Your task to perform on an android device: Show me productivity apps on the Play Store Image 0: 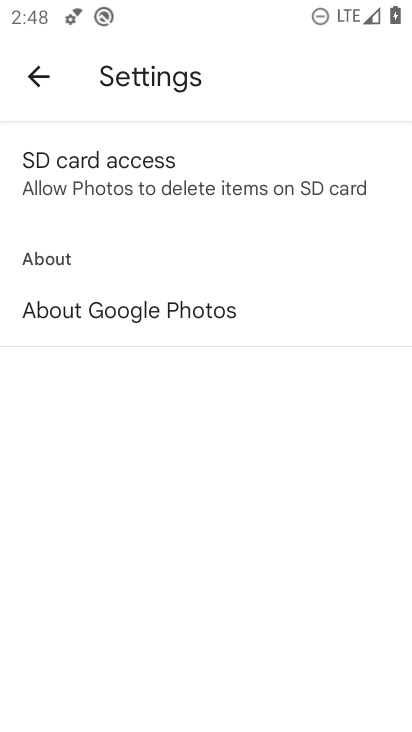
Step 0: click (41, 78)
Your task to perform on an android device: Show me productivity apps on the Play Store Image 1: 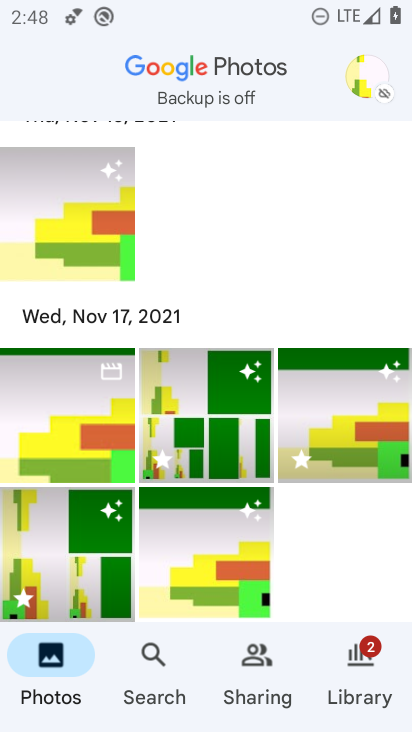
Step 1: press back button
Your task to perform on an android device: Show me productivity apps on the Play Store Image 2: 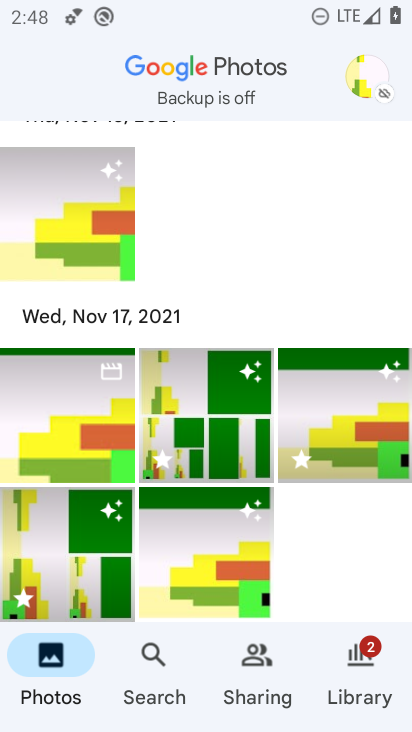
Step 2: press back button
Your task to perform on an android device: Show me productivity apps on the Play Store Image 3: 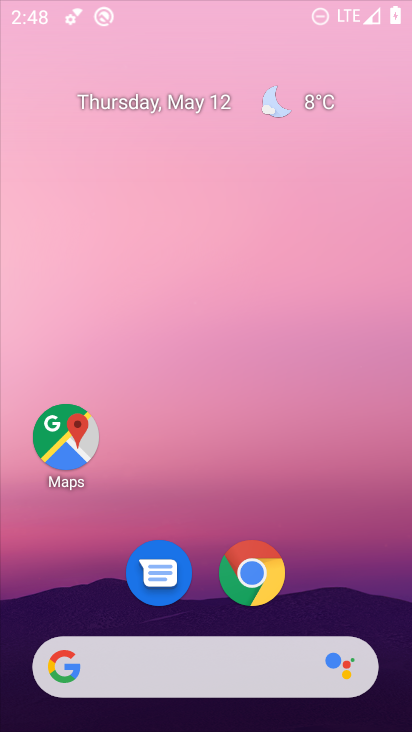
Step 3: press back button
Your task to perform on an android device: Show me productivity apps on the Play Store Image 4: 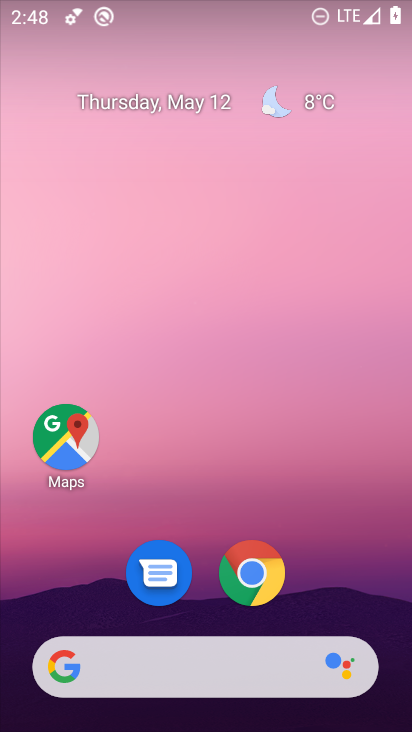
Step 4: drag from (304, 630) to (115, 166)
Your task to perform on an android device: Show me productivity apps on the Play Store Image 5: 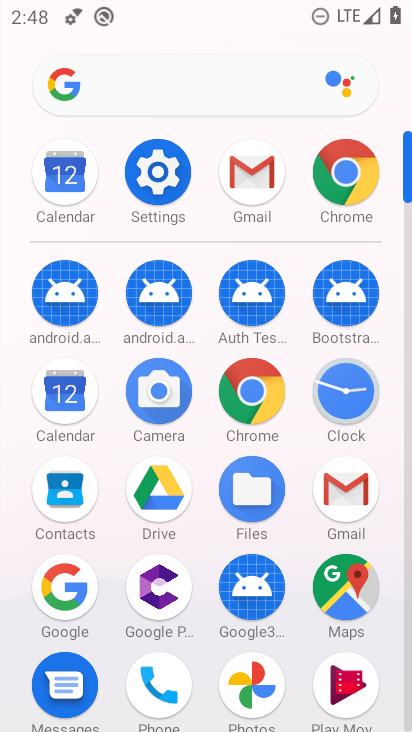
Step 5: drag from (189, 590) to (125, 209)
Your task to perform on an android device: Show me productivity apps on the Play Store Image 6: 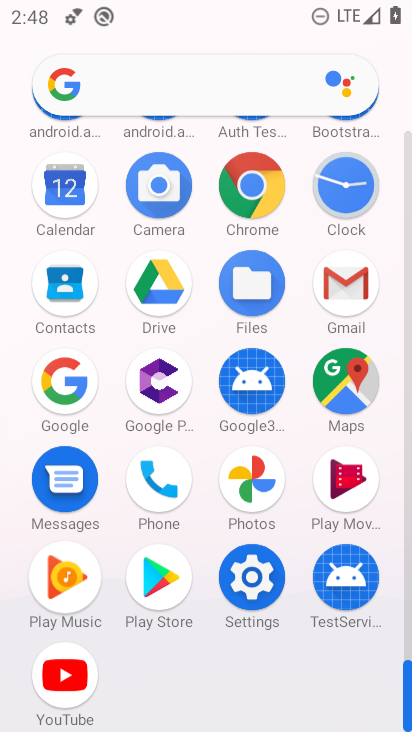
Step 6: drag from (196, 471) to (144, 144)
Your task to perform on an android device: Show me productivity apps on the Play Store Image 7: 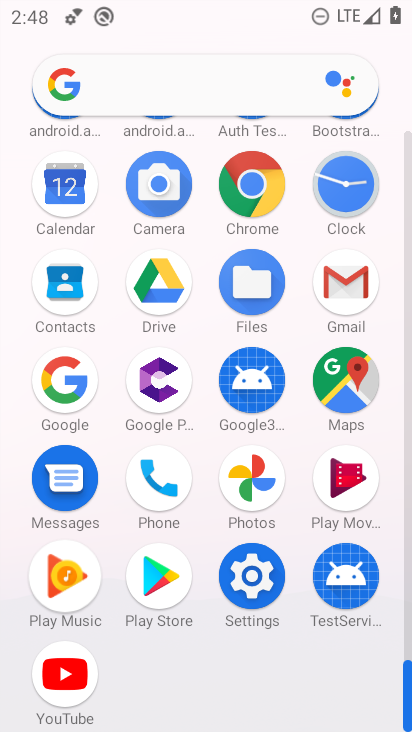
Step 7: click (146, 569)
Your task to perform on an android device: Show me productivity apps on the Play Store Image 8: 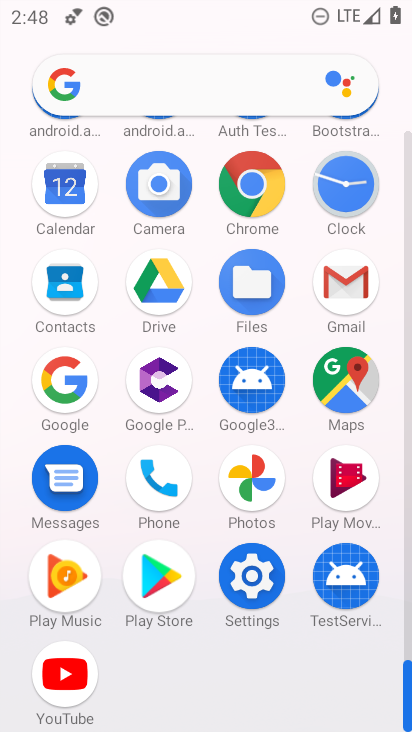
Step 8: click (146, 569)
Your task to perform on an android device: Show me productivity apps on the Play Store Image 9: 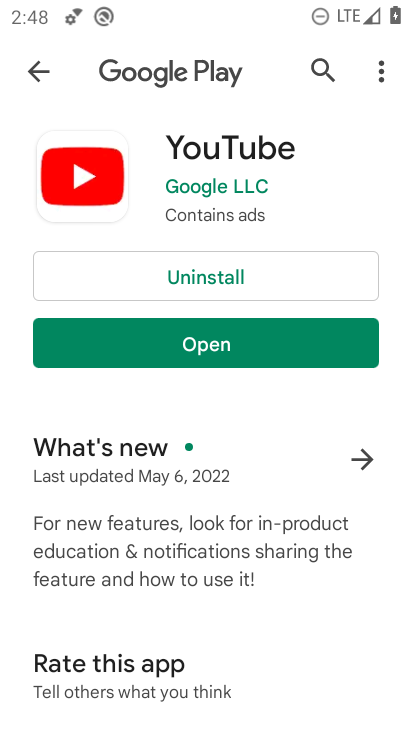
Step 9: click (28, 64)
Your task to perform on an android device: Show me productivity apps on the Play Store Image 10: 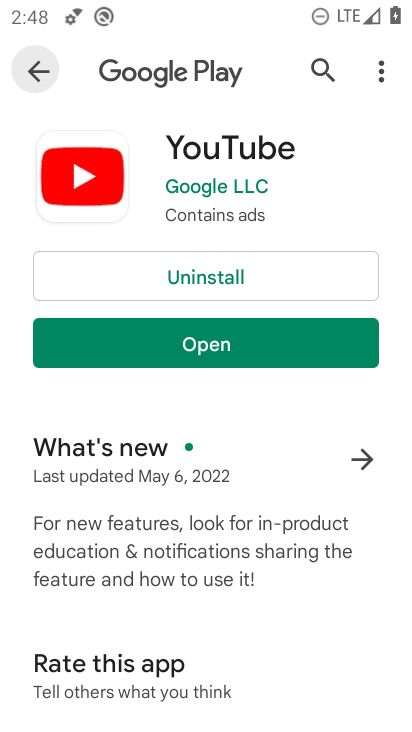
Step 10: click (29, 64)
Your task to perform on an android device: Show me productivity apps on the Play Store Image 11: 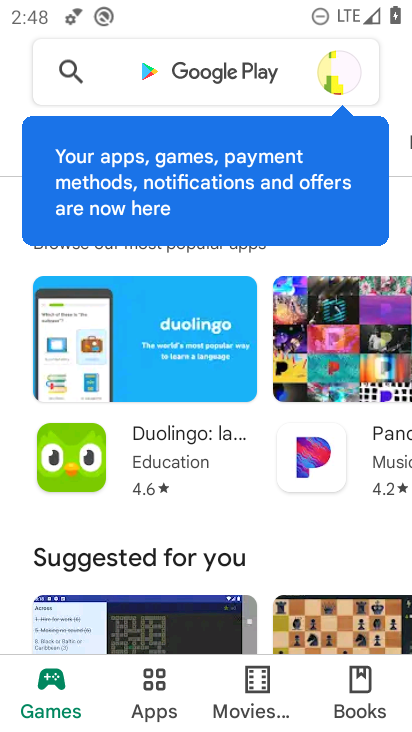
Step 11: click (165, 63)
Your task to perform on an android device: Show me productivity apps on the Play Store Image 12: 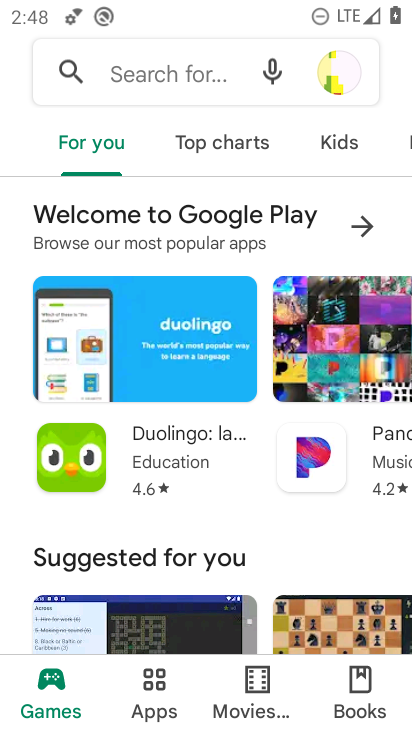
Step 12: click (165, 63)
Your task to perform on an android device: Show me productivity apps on the Play Store Image 13: 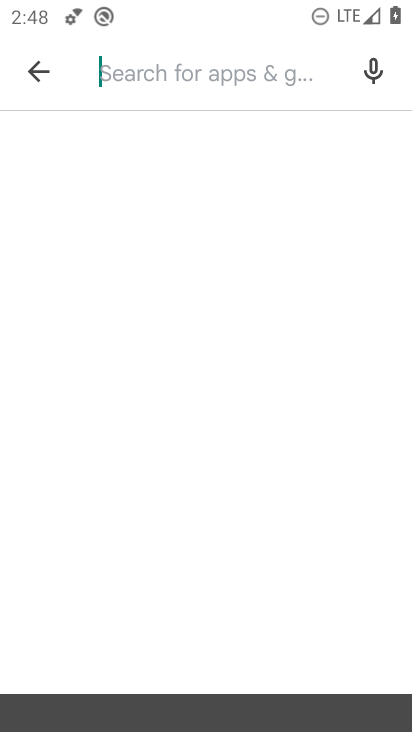
Step 13: click (165, 63)
Your task to perform on an android device: Show me productivity apps on the Play Store Image 14: 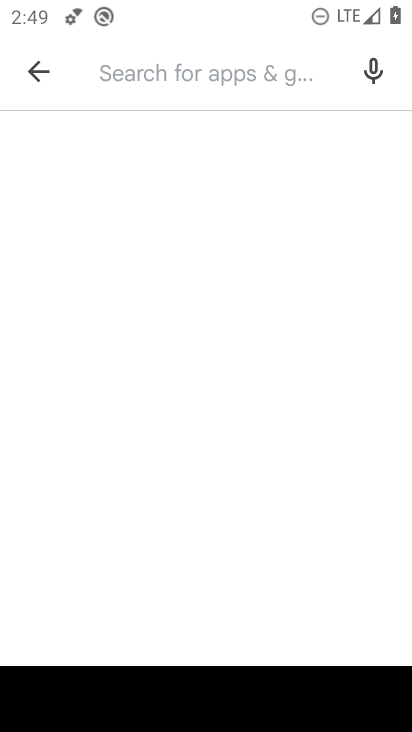
Step 14: type "productivty apps"
Your task to perform on an android device: Show me productivity apps on the Play Store Image 15: 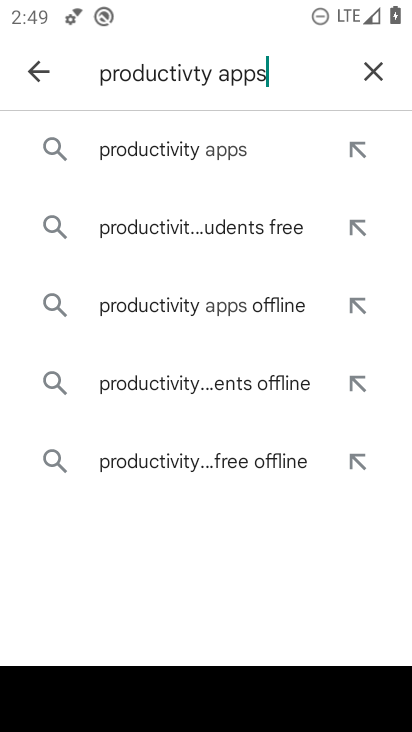
Step 15: click (143, 142)
Your task to perform on an android device: Show me productivity apps on the Play Store Image 16: 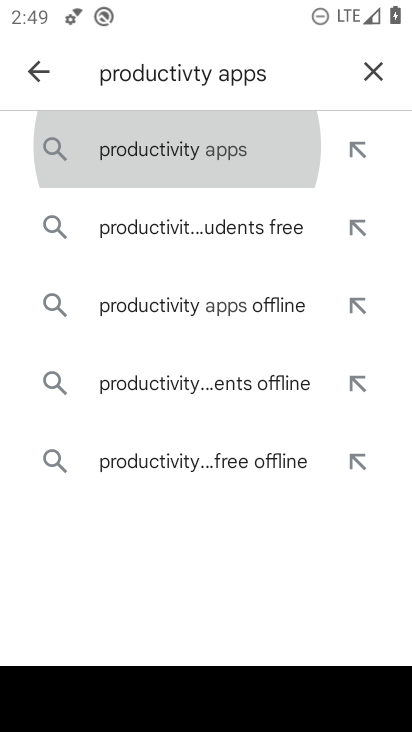
Step 16: click (144, 143)
Your task to perform on an android device: Show me productivity apps on the Play Store Image 17: 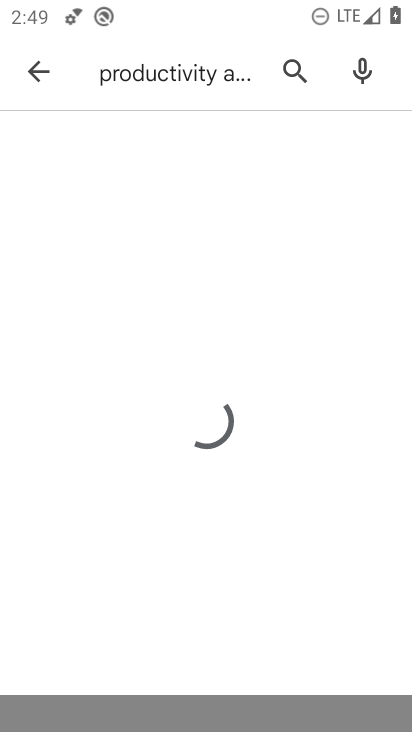
Step 17: click (144, 143)
Your task to perform on an android device: Show me productivity apps on the Play Store Image 18: 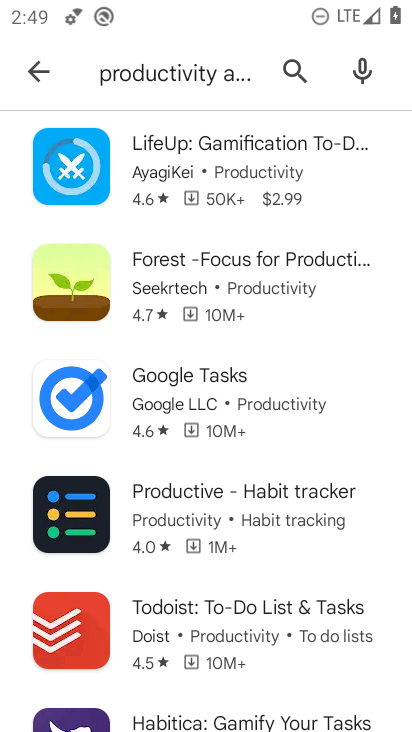
Step 18: click (219, 180)
Your task to perform on an android device: Show me productivity apps on the Play Store Image 19: 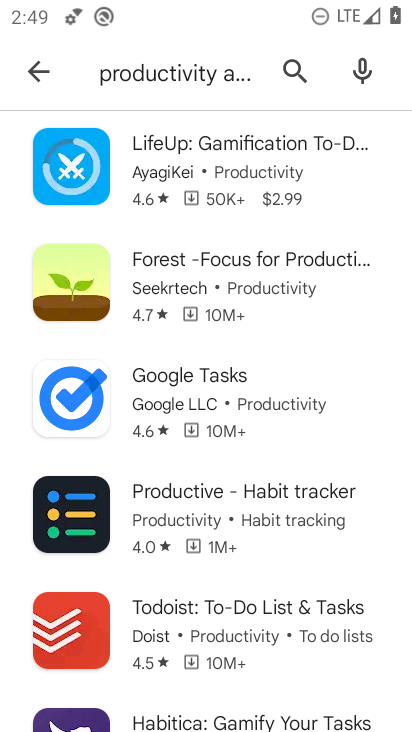
Step 19: click (220, 181)
Your task to perform on an android device: Show me productivity apps on the Play Store Image 20: 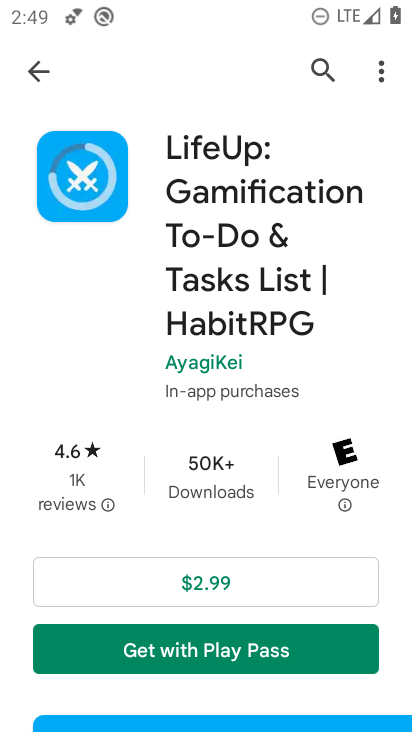
Step 20: task complete